Your task to perform on an android device: allow notifications from all sites in the chrome app Image 0: 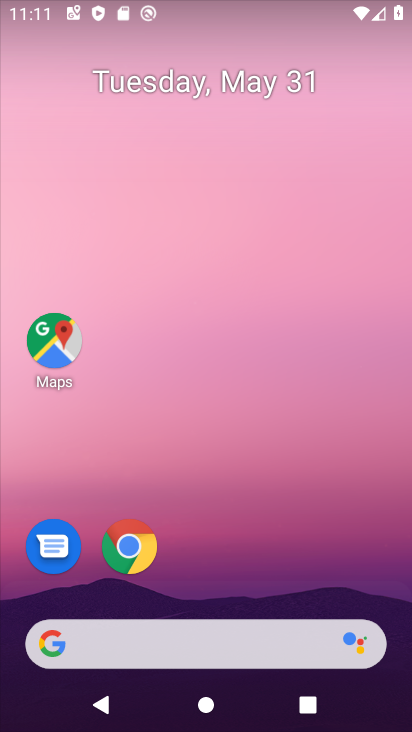
Step 0: drag from (234, 610) to (192, 118)
Your task to perform on an android device: allow notifications from all sites in the chrome app Image 1: 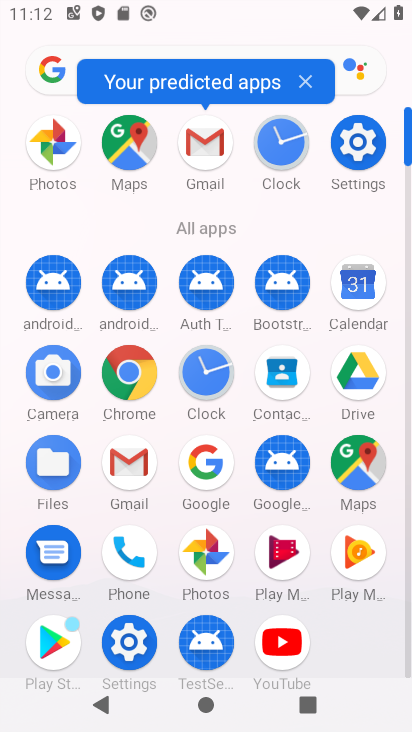
Step 1: click (139, 361)
Your task to perform on an android device: allow notifications from all sites in the chrome app Image 2: 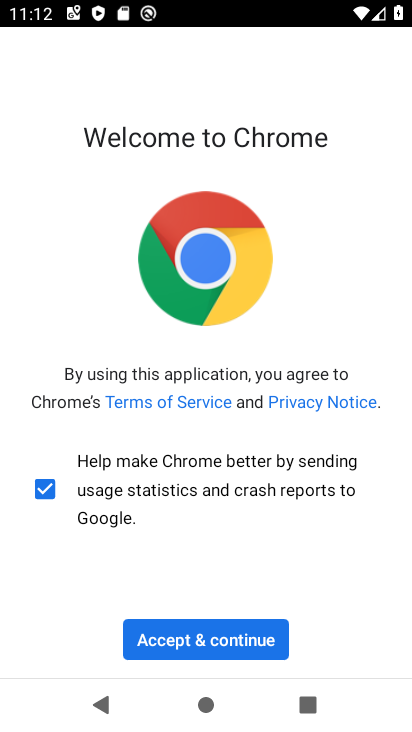
Step 2: click (261, 630)
Your task to perform on an android device: allow notifications from all sites in the chrome app Image 3: 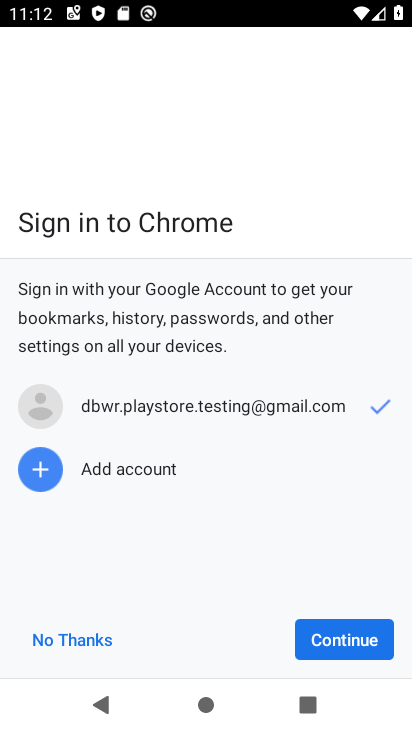
Step 3: click (327, 633)
Your task to perform on an android device: allow notifications from all sites in the chrome app Image 4: 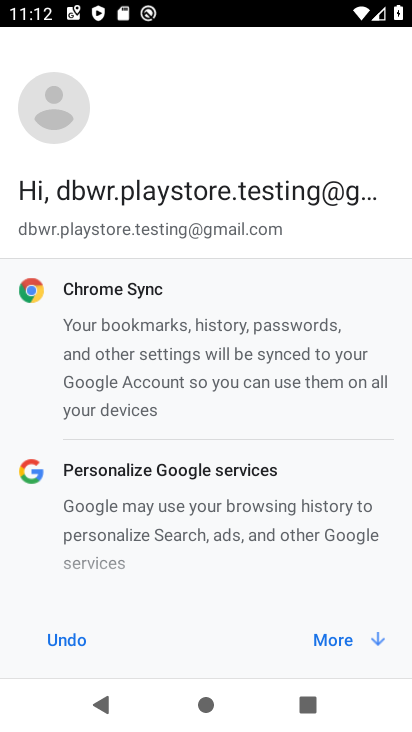
Step 4: click (327, 633)
Your task to perform on an android device: allow notifications from all sites in the chrome app Image 5: 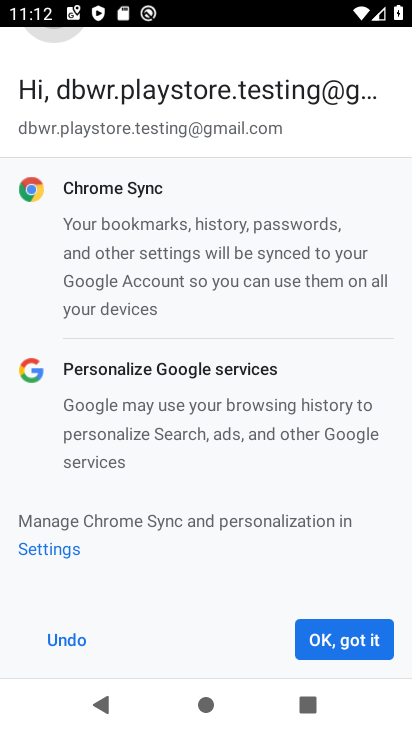
Step 5: click (327, 633)
Your task to perform on an android device: allow notifications from all sites in the chrome app Image 6: 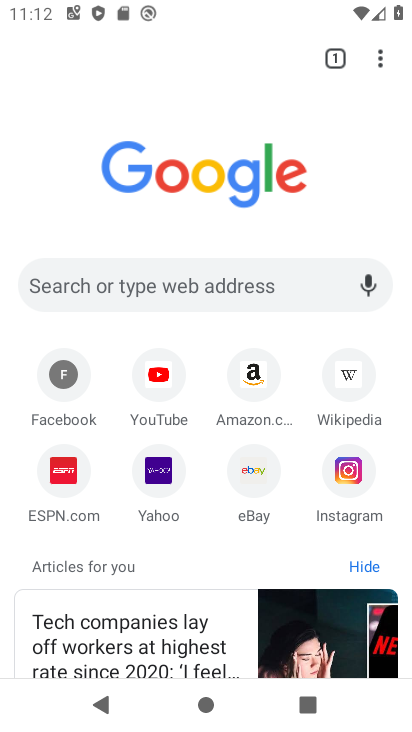
Step 6: click (377, 53)
Your task to perform on an android device: allow notifications from all sites in the chrome app Image 7: 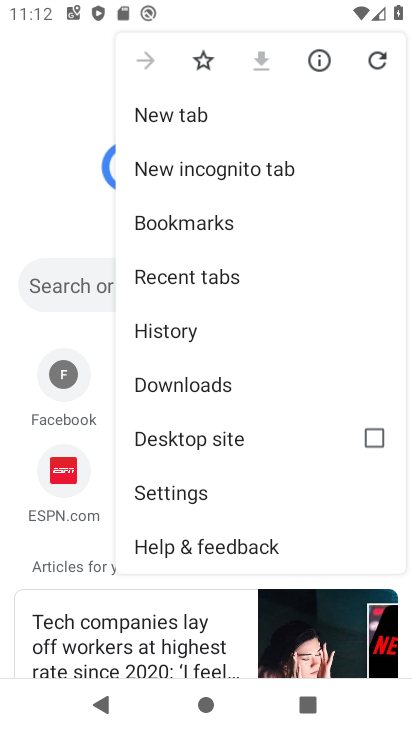
Step 7: click (254, 499)
Your task to perform on an android device: allow notifications from all sites in the chrome app Image 8: 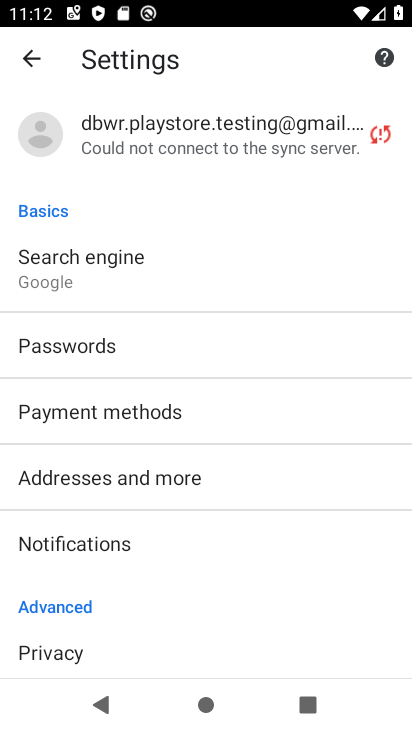
Step 8: drag from (213, 599) to (243, 105)
Your task to perform on an android device: allow notifications from all sites in the chrome app Image 9: 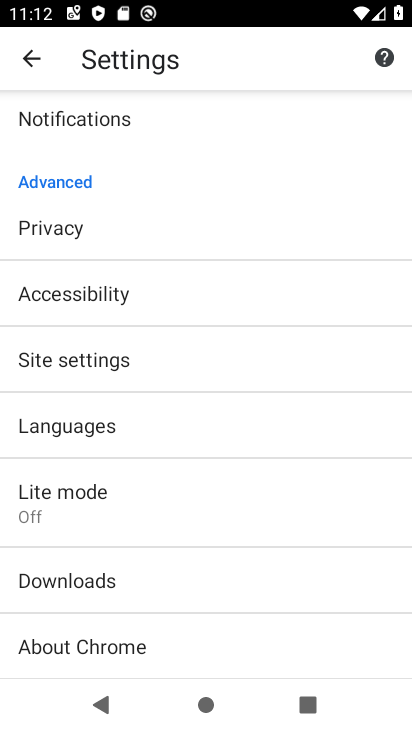
Step 9: click (167, 367)
Your task to perform on an android device: allow notifications from all sites in the chrome app Image 10: 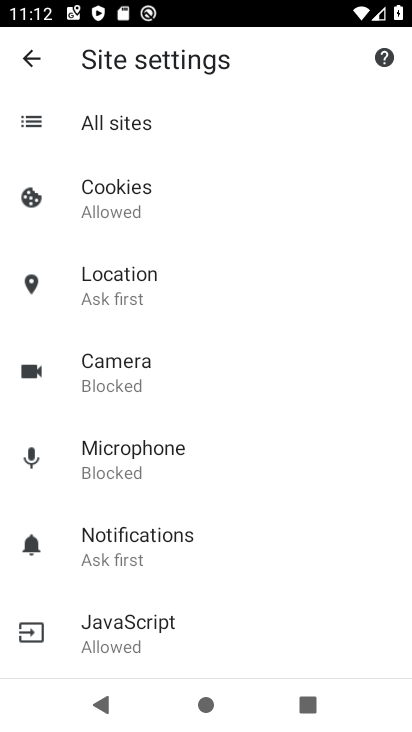
Step 10: click (201, 533)
Your task to perform on an android device: allow notifications from all sites in the chrome app Image 11: 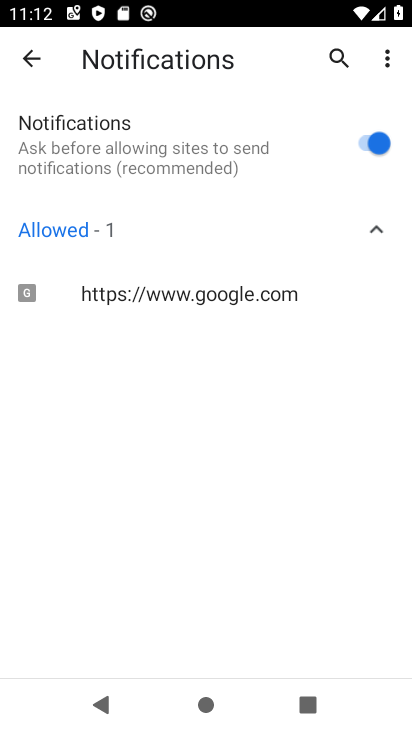
Step 11: task complete